Your task to perform on an android device: Play the last video I watched on Youtube Image 0: 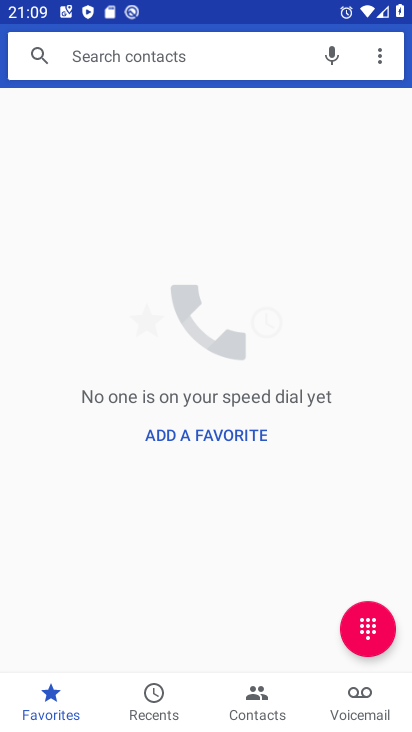
Step 0: press home button
Your task to perform on an android device: Play the last video I watched on Youtube Image 1: 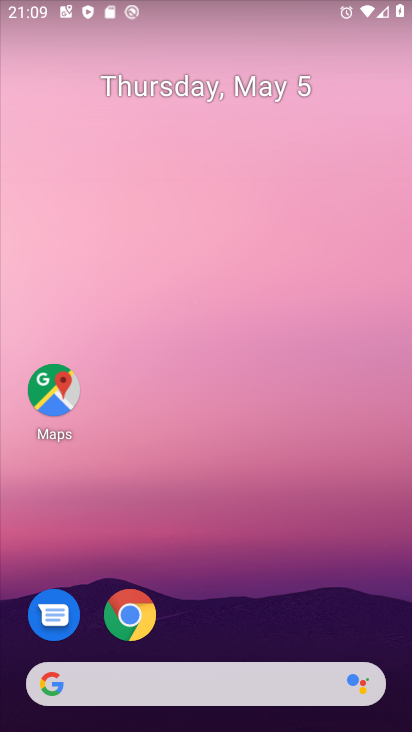
Step 1: drag from (237, 644) to (304, 99)
Your task to perform on an android device: Play the last video I watched on Youtube Image 2: 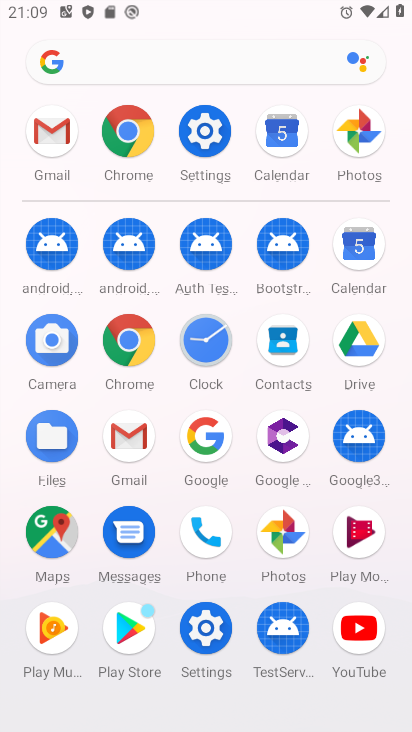
Step 2: click (363, 634)
Your task to perform on an android device: Play the last video I watched on Youtube Image 3: 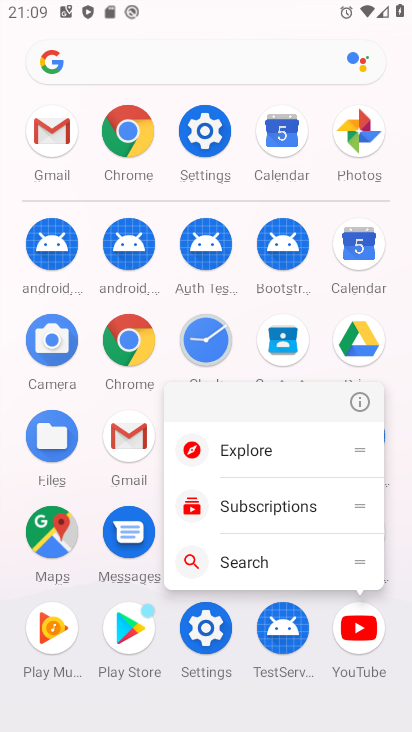
Step 3: click (364, 637)
Your task to perform on an android device: Play the last video I watched on Youtube Image 4: 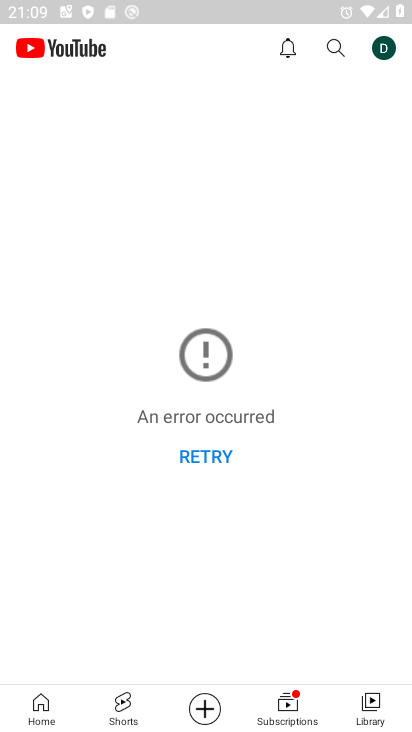
Step 4: click (375, 713)
Your task to perform on an android device: Play the last video I watched on Youtube Image 5: 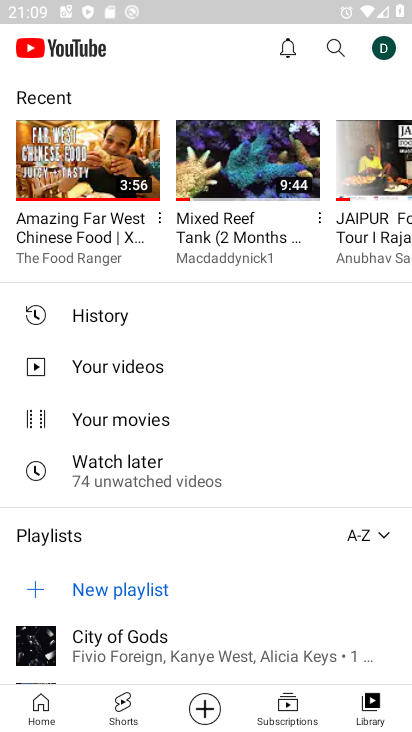
Step 5: click (98, 180)
Your task to perform on an android device: Play the last video I watched on Youtube Image 6: 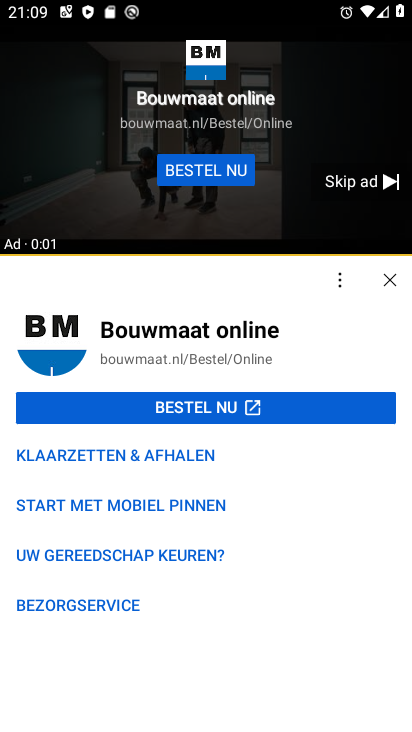
Step 6: task complete